Your task to perform on an android device: Go to Reddit.com Image 0: 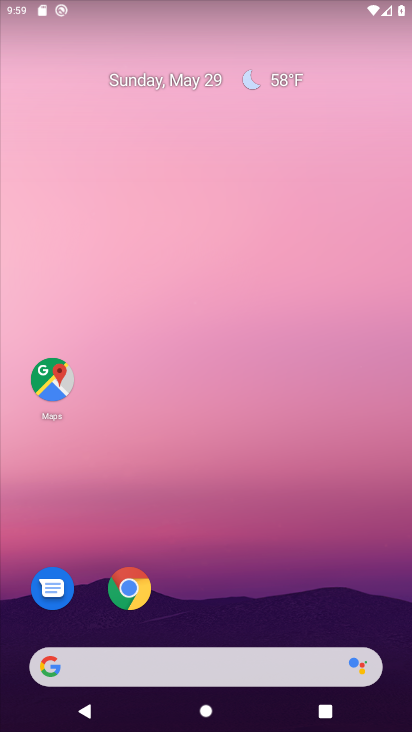
Step 0: drag from (292, 714) to (238, 289)
Your task to perform on an android device: Go to Reddit.com Image 1: 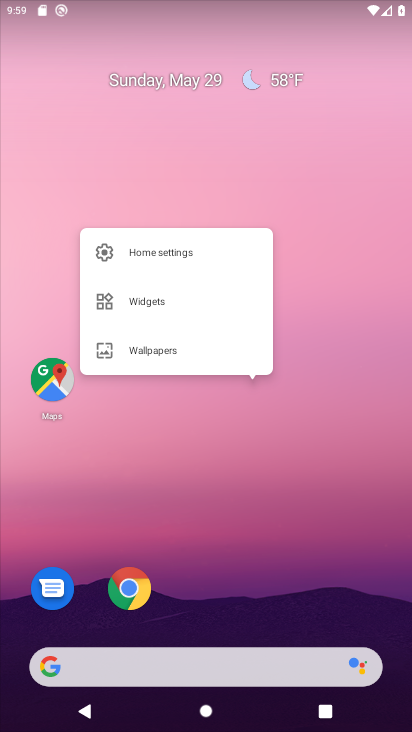
Step 1: drag from (288, 695) to (168, 13)
Your task to perform on an android device: Go to Reddit.com Image 2: 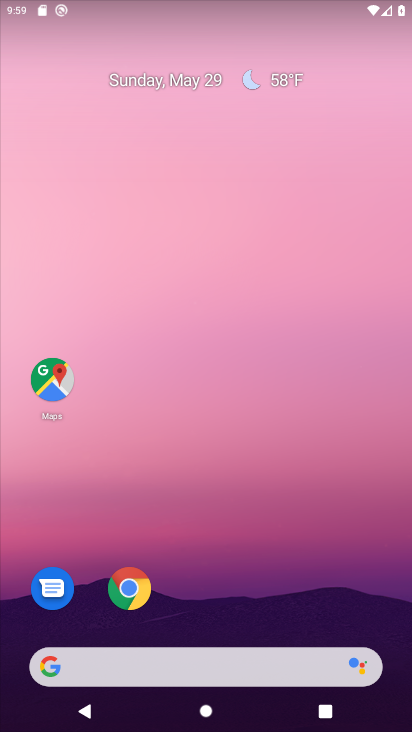
Step 2: drag from (244, 625) to (233, 146)
Your task to perform on an android device: Go to Reddit.com Image 3: 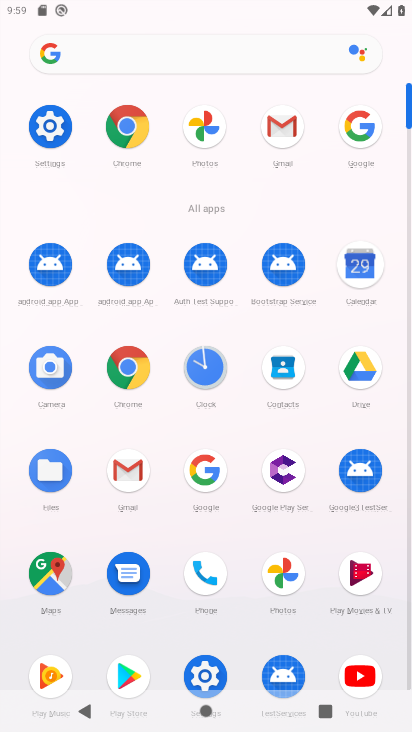
Step 3: drag from (257, 569) to (250, 334)
Your task to perform on an android device: Go to Reddit.com Image 4: 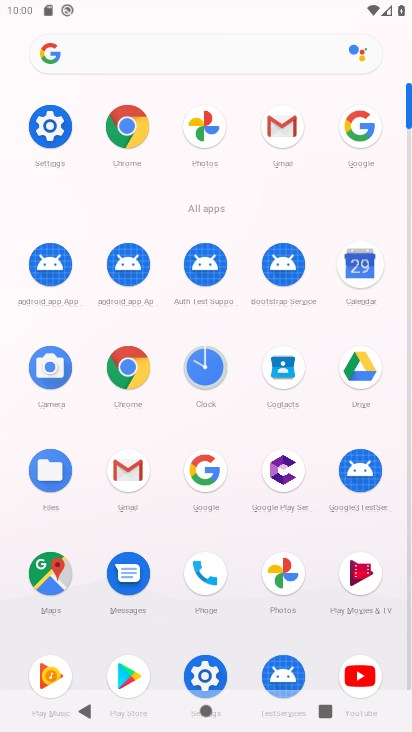
Step 4: click (119, 128)
Your task to perform on an android device: Go to Reddit.com Image 5: 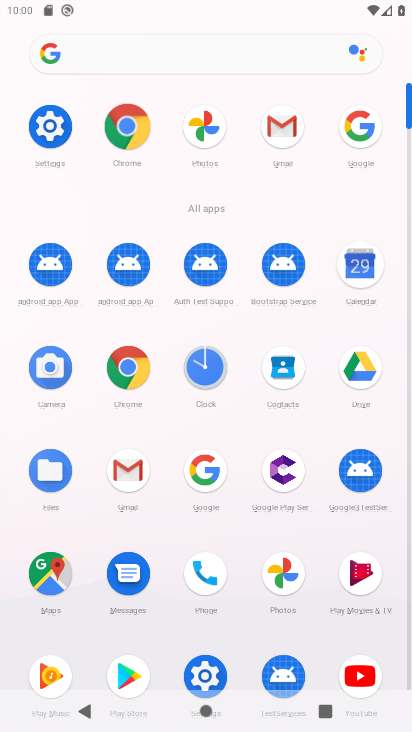
Step 5: click (119, 127)
Your task to perform on an android device: Go to Reddit.com Image 6: 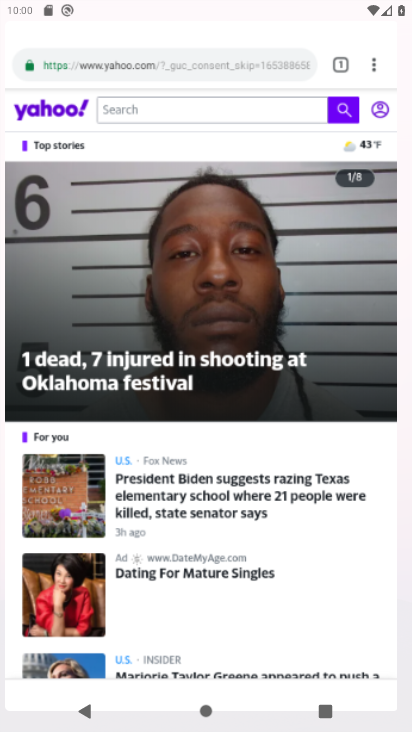
Step 6: click (119, 127)
Your task to perform on an android device: Go to Reddit.com Image 7: 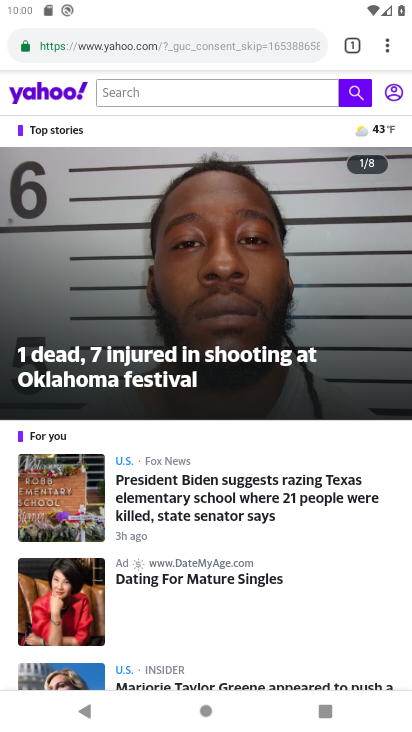
Step 7: click (386, 46)
Your task to perform on an android device: Go to Reddit.com Image 8: 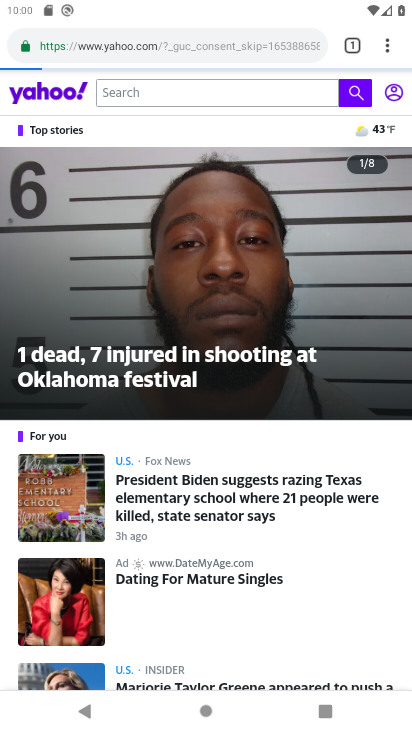
Step 8: drag from (387, 47) to (207, 86)
Your task to perform on an android device: Go to Reddit.com Image 9: 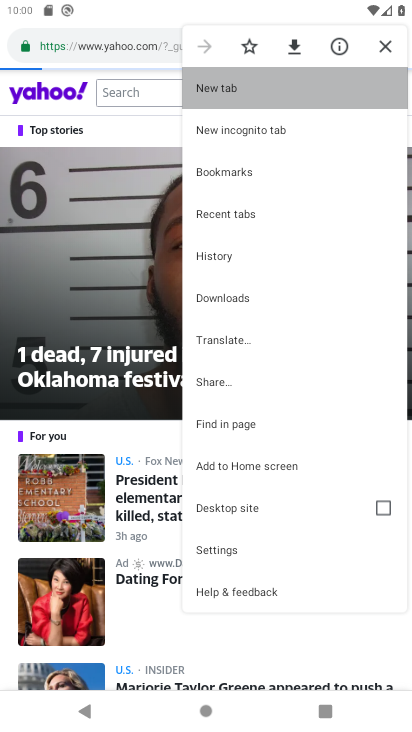
Step 9: click (207, 86)
Your task to perform on an android device: Go to Reddit.com Image 10: 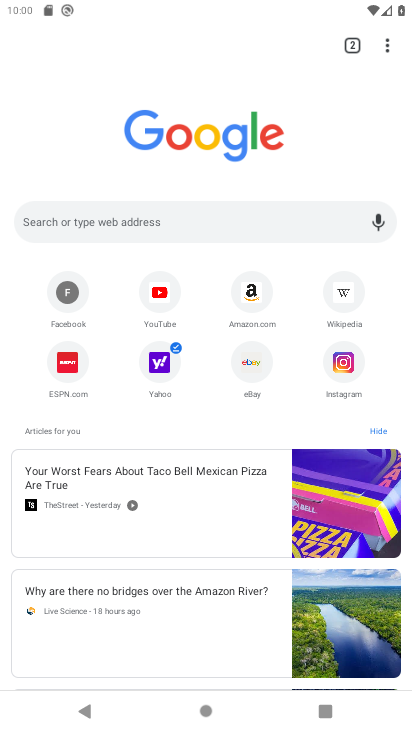
Step 10: click (48, 225)
Your task to perform on an android device: Go to Reddit.com Image 11: 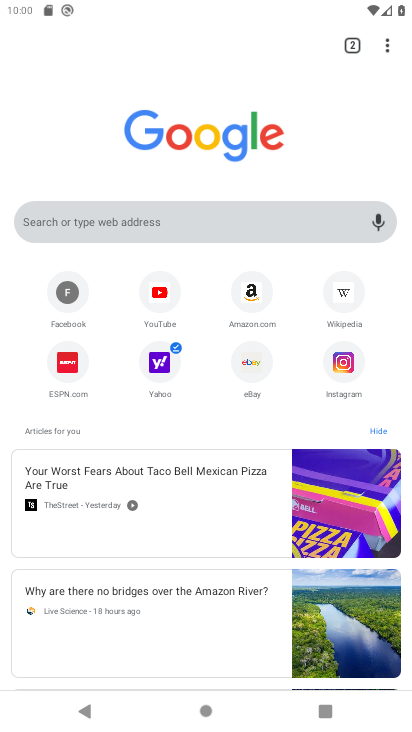
Step 11: click (46, 223)
Your task to perform on an android device: Go to Reddit.com Image 12: 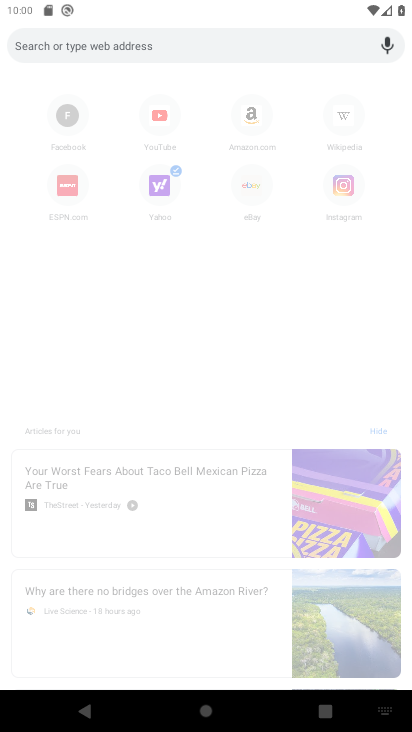
Step 12: type "reddit.com"
Your task to perform on an android device: Go to Reddit.com Image 13: 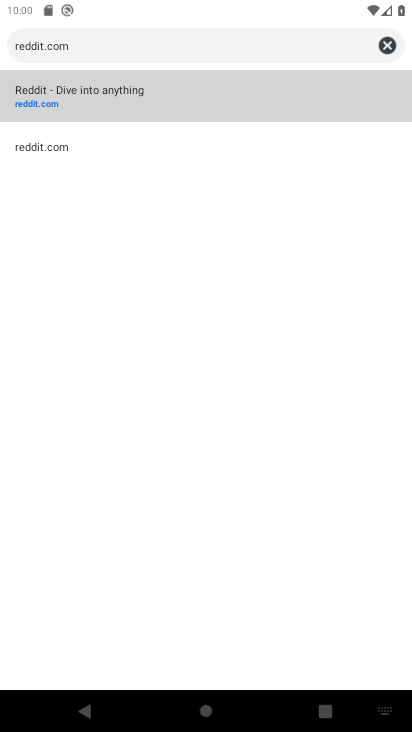
Step 13: click (56, 102)
Your task to perform on an android device: Go to Reddit.com Image 14: 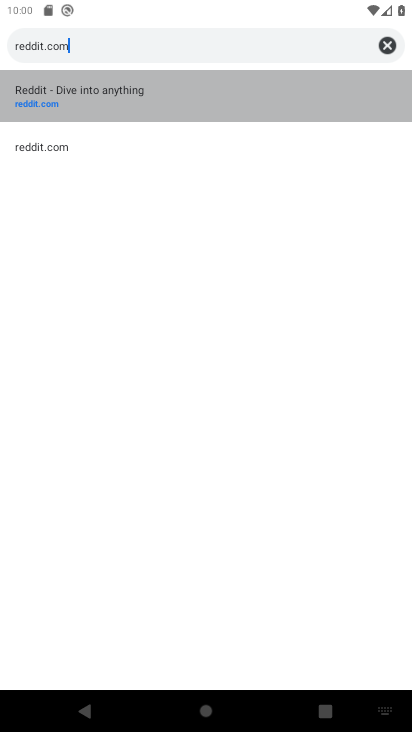
Step 14: click (57, 101)
Your task to perform on an android device: Go to Reddit.com Image 15: 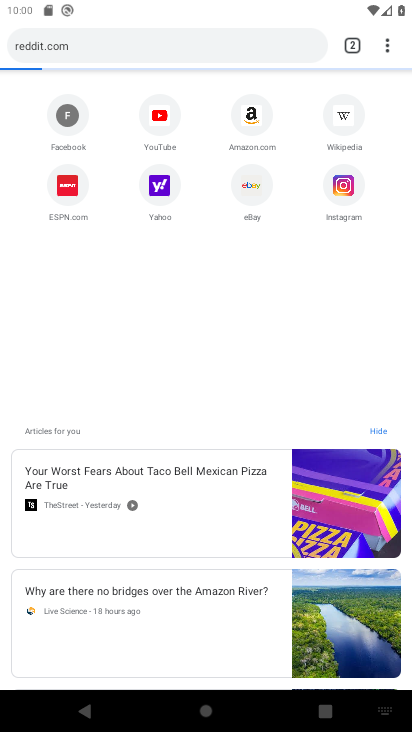
Step 15: click (60, 98)
Your task to perform on an android device: Go to Reddit.com Image 16: 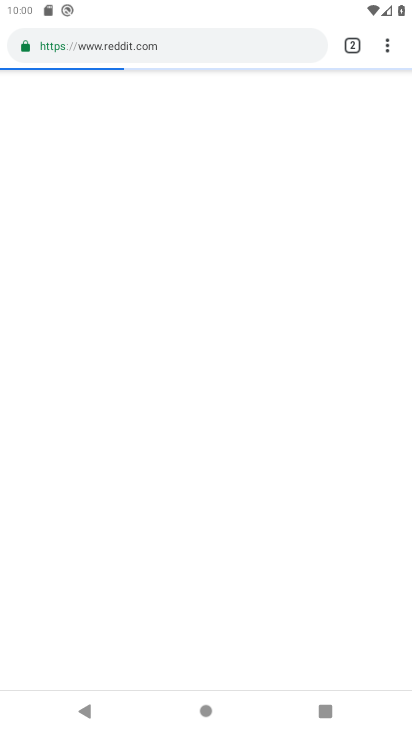
Step 16: click (60, 98)
Your task to perform on an android device: Go to Reddit.com Image 17: 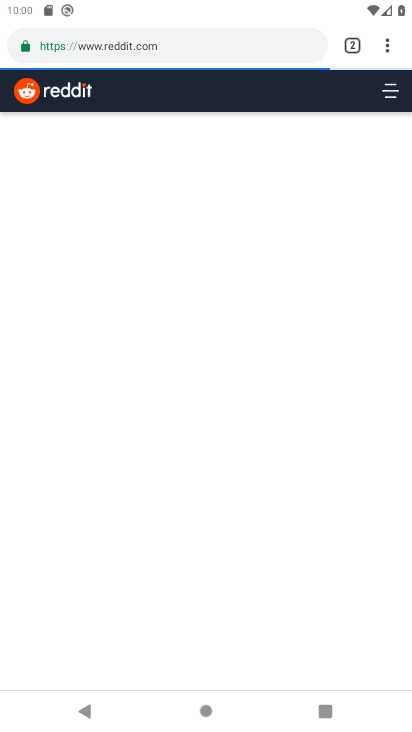
Step 17: task complete